Your task to perform on an android device: remove spam from my inbox in the gmail app Image 0: 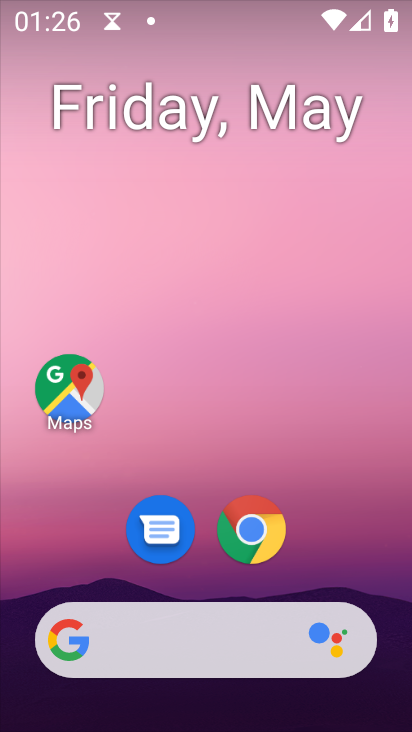
Step 0: drag from (331, 577) to (316, 254)
Your task to perform on an android device: remove spam from my inbox in the gmail app Image 1: 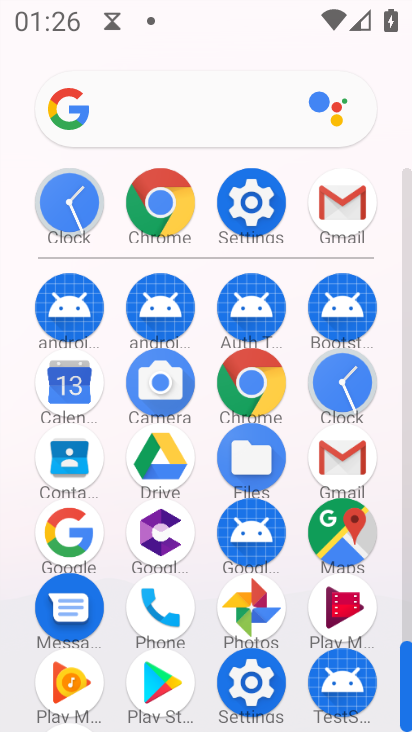
Step 1: click (350, 183)
Your task to perform on an android device: remove spam from my inbox in the gmail app Image 2: 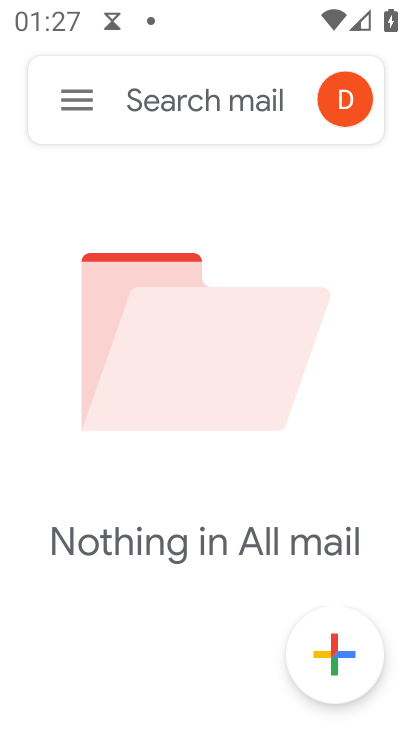
Step 2: click (64, 94)
Your task to perform on an android device: remove spam from my inbox in the gmail app Image 3: 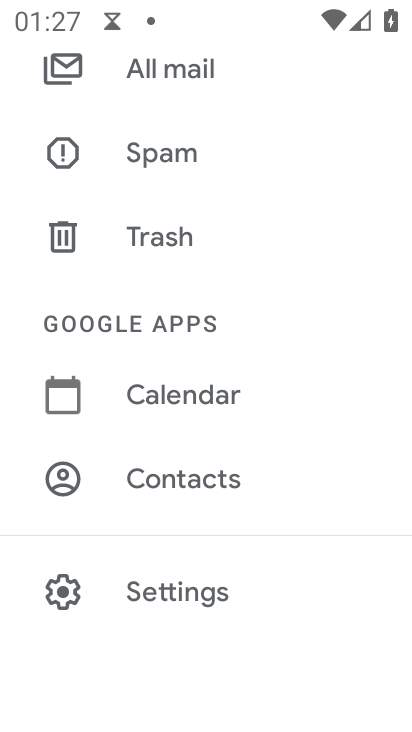
Step 3: click (171, 149)
Your task to perform on an android device: remove spam from my inbox in the gmail app Image 4: 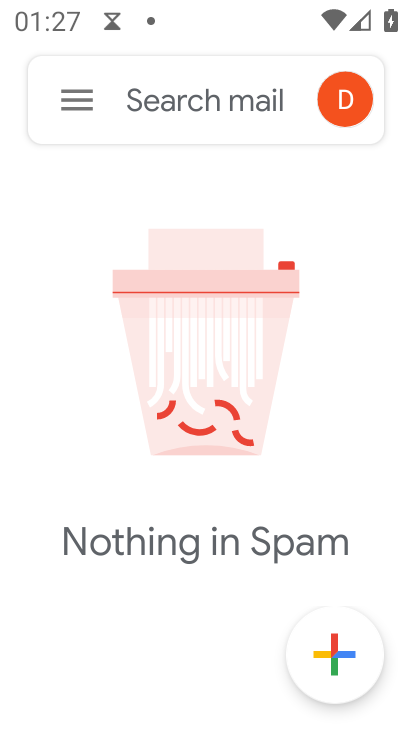
Step 4: task complete